Your task to perform on an android device: Open the calendar app, open the side menu, and click the "Day" option Image 0: 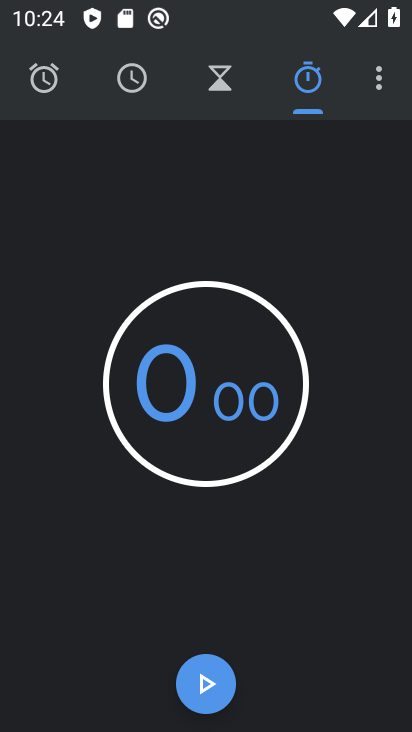
Step 0: press home button
Your task to perform on an android device: Open the calendar app, open the side menu, and click the "Day" option Image 1: 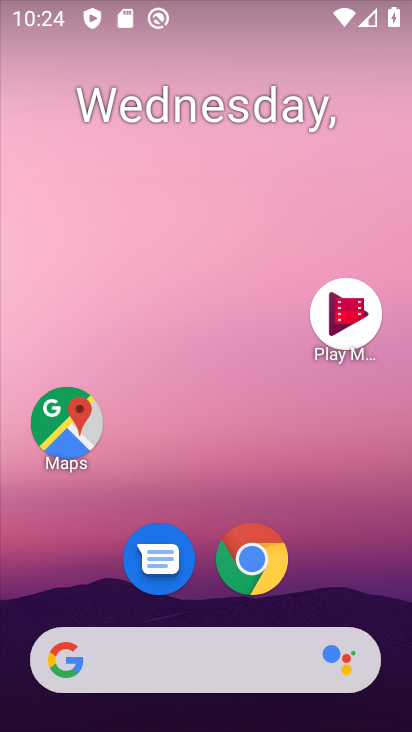
Step 1: drag from (341, 579) to (332, 69)
Your task to perform on an android device: Open the calendar app, open the side menu, and click the "Day" option Image 2: 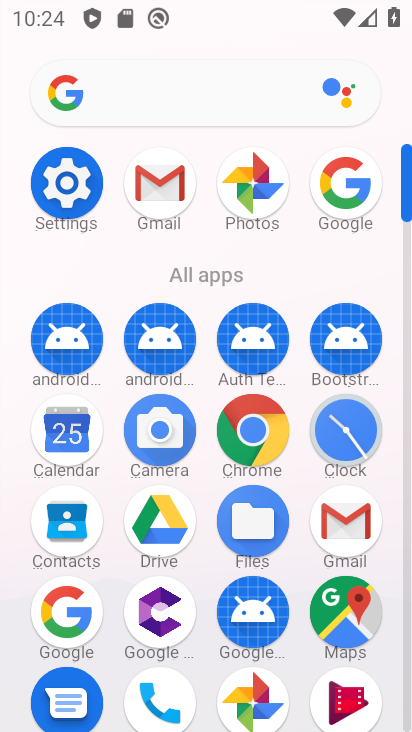
Step 2: click (70, 441)
Your task to perform on an android device: Open the calendar app, open the side menu, and click the "Day" option Image 3: 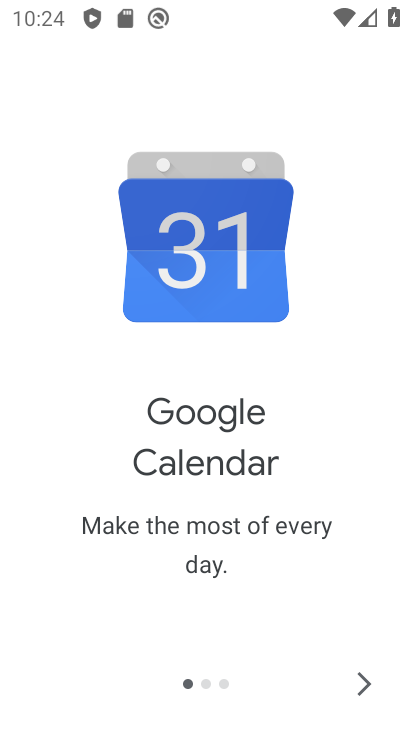
Step 3: click (366, 679)
Your task to perform on an android device: Open the calendar app, open the side menu, and click the "Day" option Image 4: 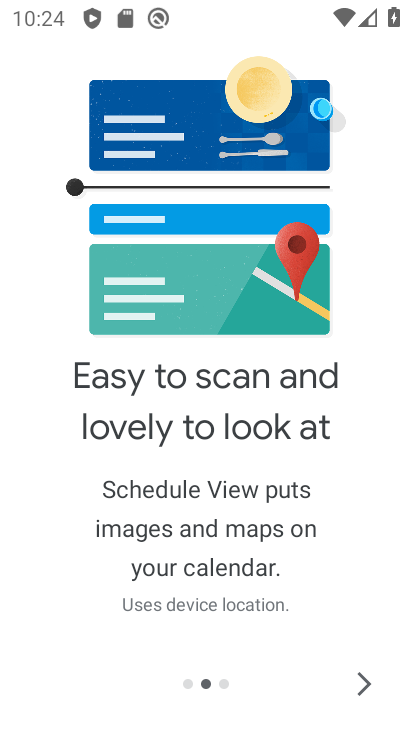
Step 4: click (366, 679)
Your task to perform on an android device: Open the calendar app, open the side menu, and click the "Day" option Image 5: 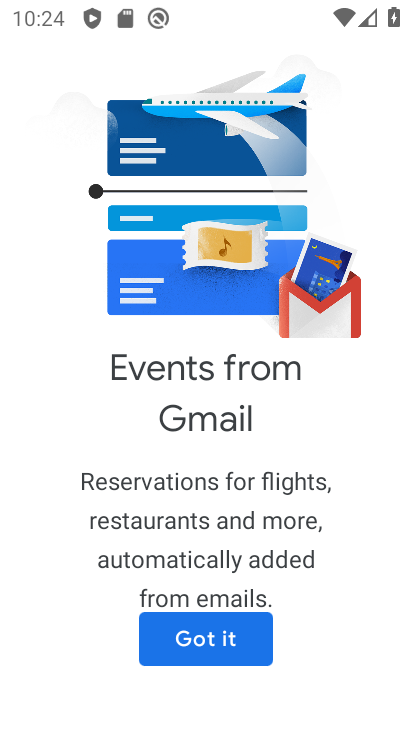
Step 5: click (210, 636)
Your task to perform on an android device: Open the calendar app, open the side menu, and click the "Day" option Image 6: 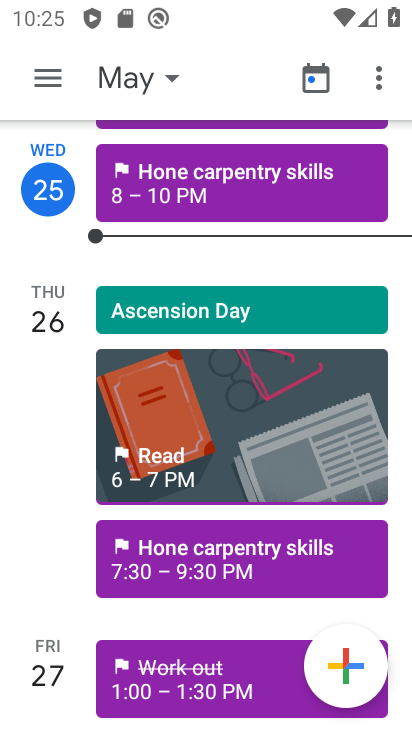
Step 6: click (51, 71)
Your task to perform on an android device: Open the calendar app, open the side menu, and click the "Day" option Image 7: 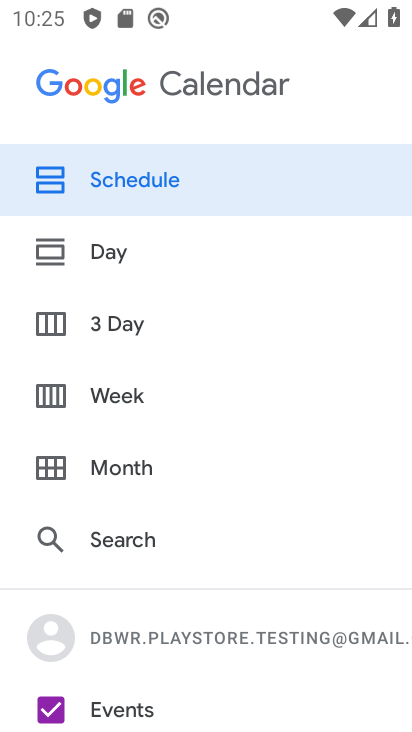
Step 7: click (114, 250)
Your task to perform on an android device: Open the calendar app, open the side menu, and click the "Day" option Image 8: 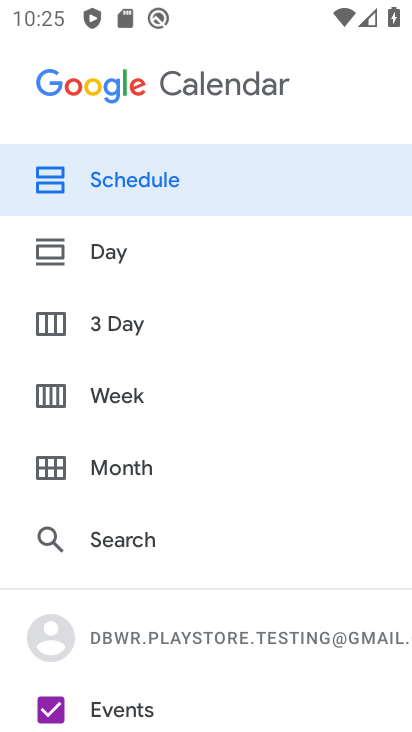
Step 8: click (114, 259)
Your task to perform on an android device: Open the calendar app, open the side menu, and click the "Day" option Image 9: 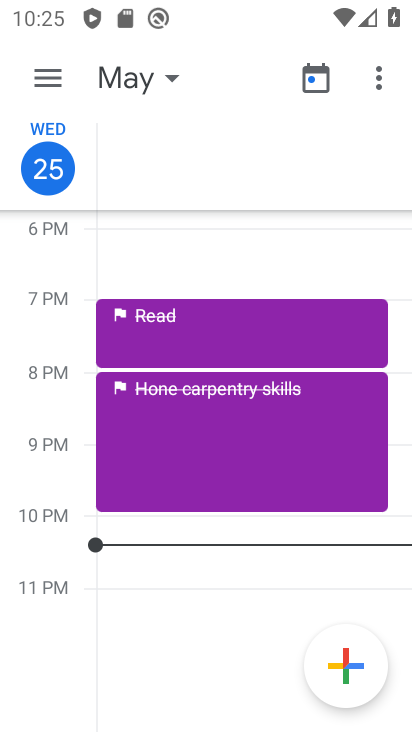
Step 9: task complete